Your task to perform on an android device: open a bookmark in the chrome app Image 0: 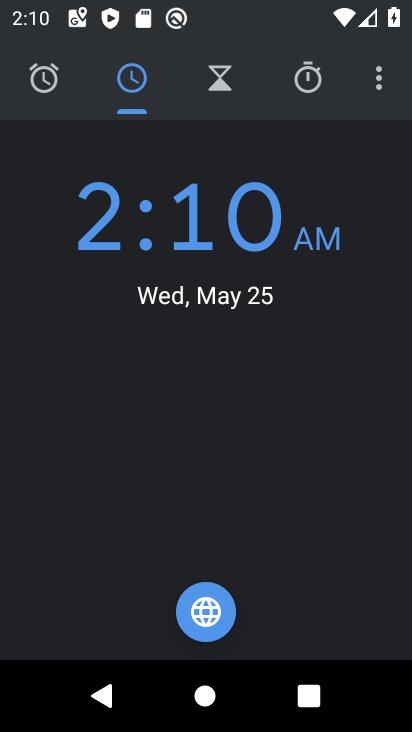
Step 0: press home button
Your task to perform on an android device: open a bookmark in the chrome app Image 1: 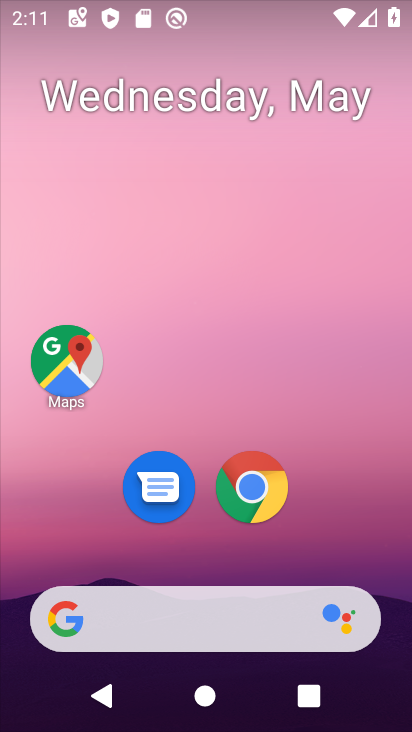
Step 1: drag from (380, 519) to (407, 8)
Your task to perform on an android device: open a bookmark in the chrome app Image 2: 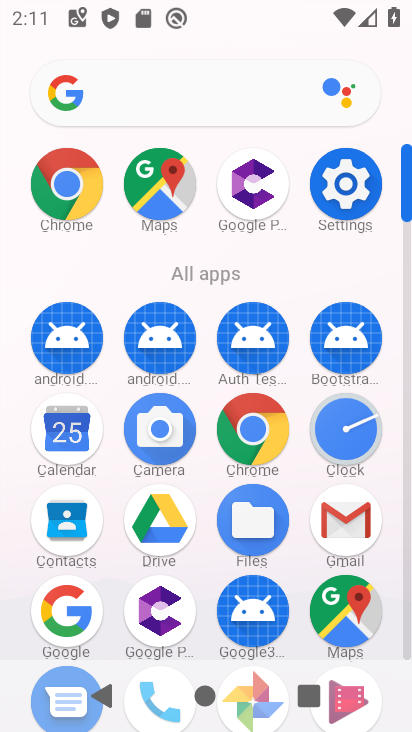
Step 2: click (64, 197)
Your task to perform on an android device: open a bookmark in the chrome app Image 3: 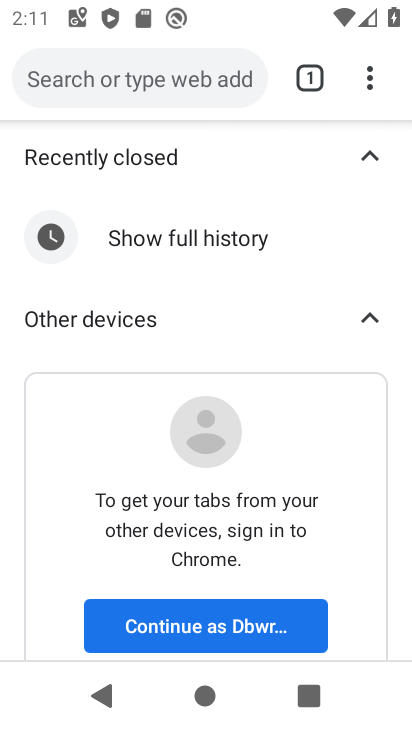
Step 3: drag from (372, 72) to (174, 318)
Your task to perform on an android device: open a bookmark in the chrome app Image 4: 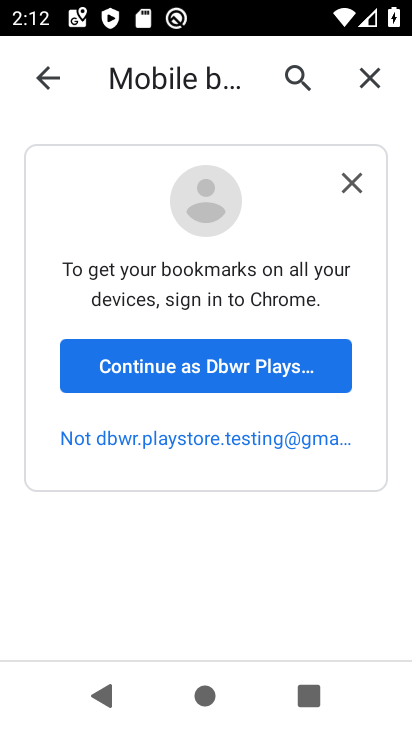
Step 4: click (214, 378)
Your task to perform on an android device: open a bookmark in the chrome app Image 5: 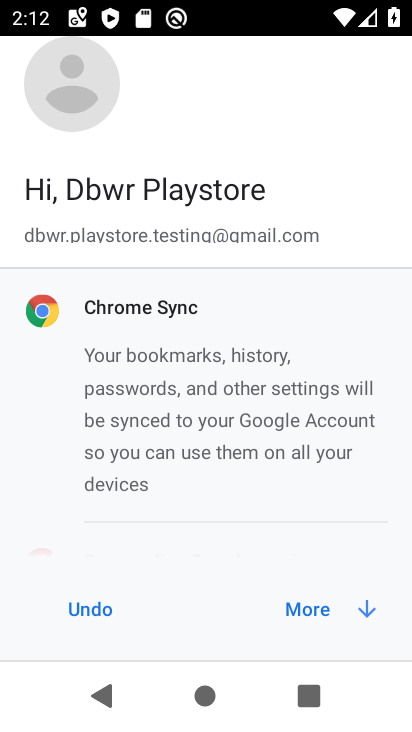
Step 5: click (327, 603)
Your task to perform on an android device: open a bookmark in the chrome app Image 6: 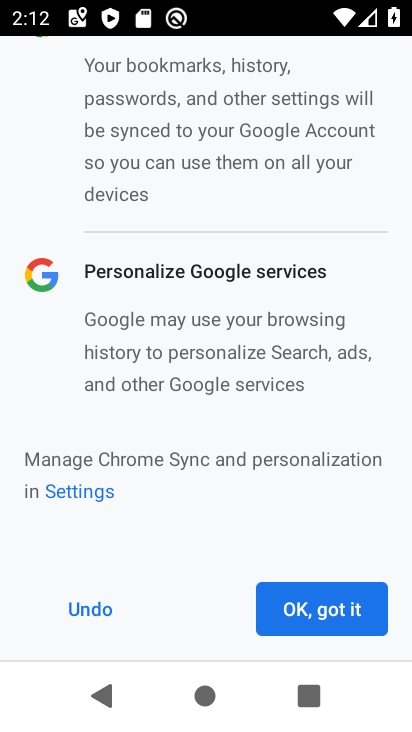
Step 6: click (327, 603)
Your task to perform on an android device: open a bookmark in the chrome app Image 7: 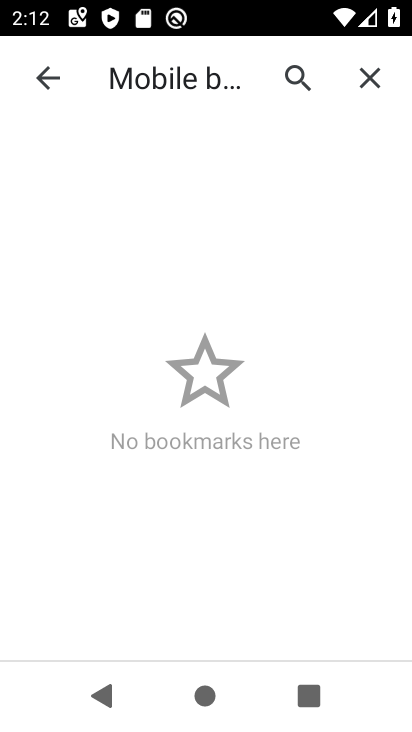
Step 7: task complete